Your task to perform on an android device: refresh tabs in the chrome app Image 0: 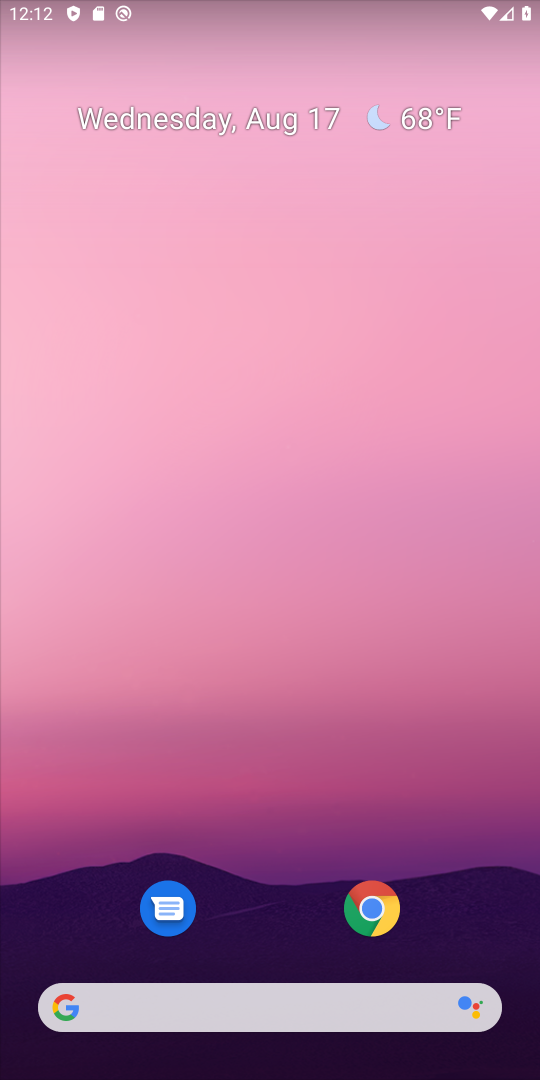
Step 0: click (383, 913)
Your task to perform on an android device: refresh tabs in the chrome app Image 1: 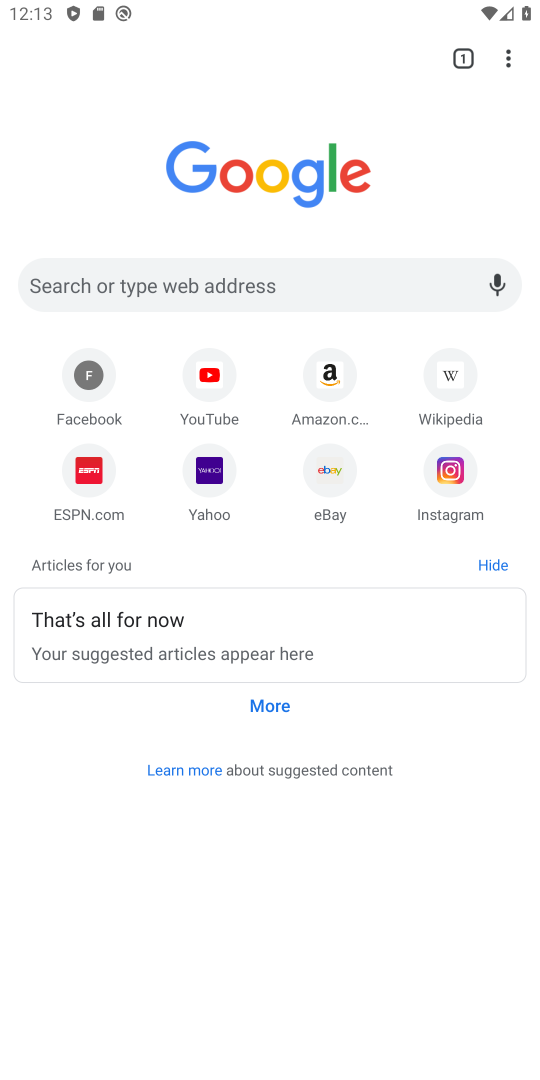
Step 1: click (506, 56)
Your task to perform on an android device: refresh tabs in the chrome app Image 2: 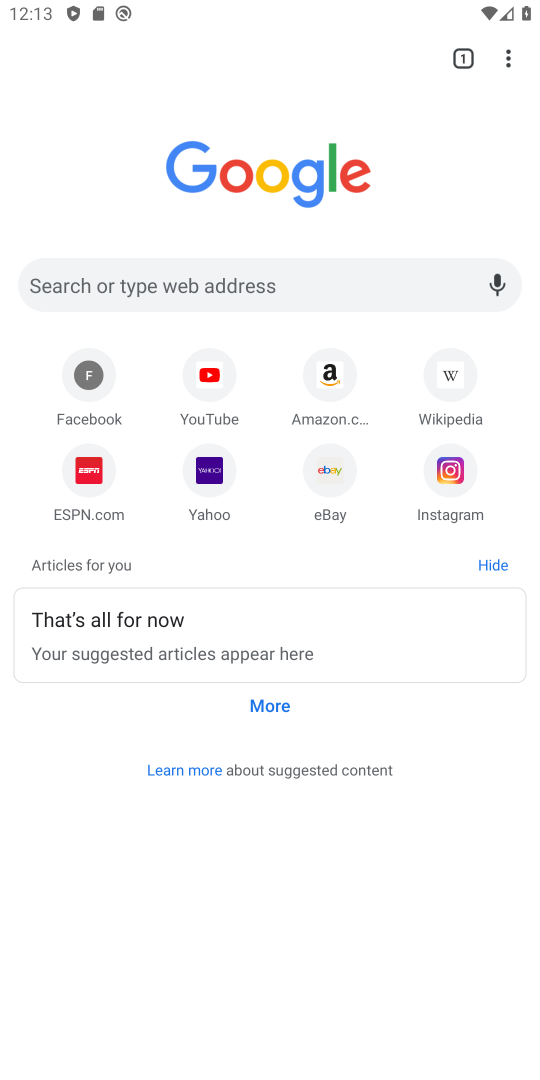
Step 2: click (513, 58)
Your task to perform on an android device: refresh tabs in the chrome app Image 3: 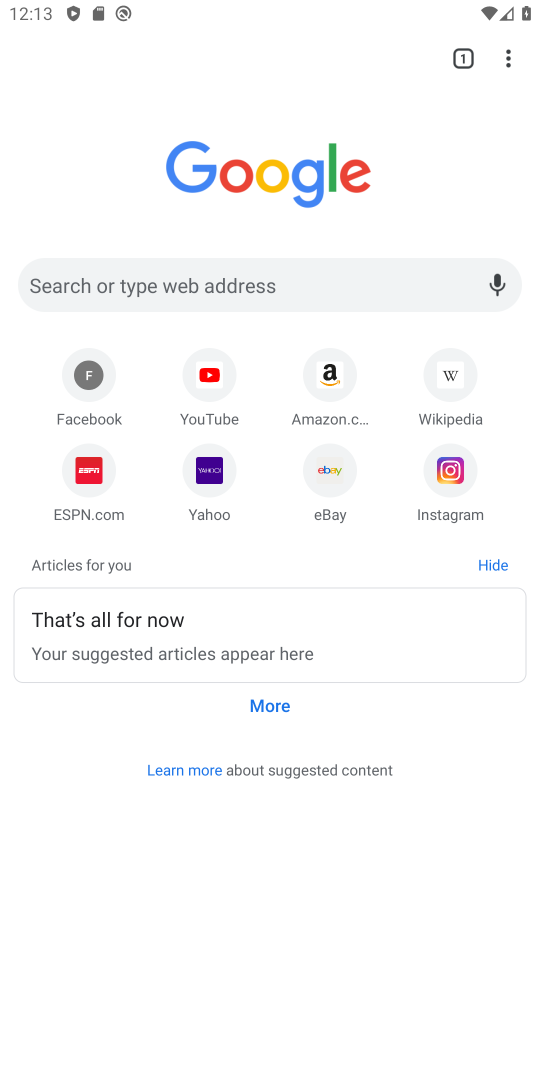
Step 3: click (507, 68)
Your task to perform on an android device: refresh tabs in the chrome app Image 4: 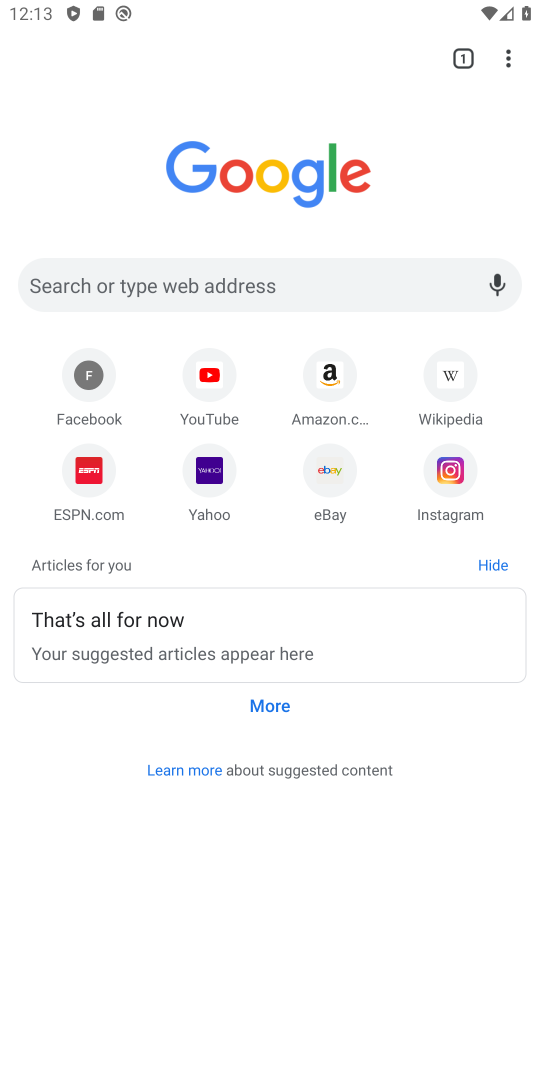
Step 4: click (511, 59)
Your task to perform on an android device: refresh tabs in the chrome app Image 5: 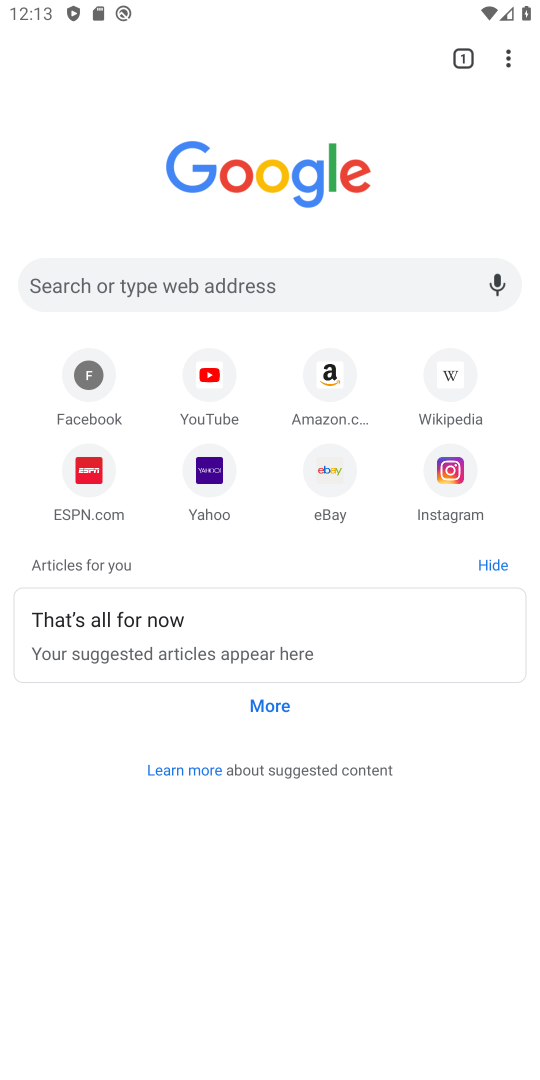
Step 5: task complete